Your task to perform on an android device: turn off airplane mode Image 0: 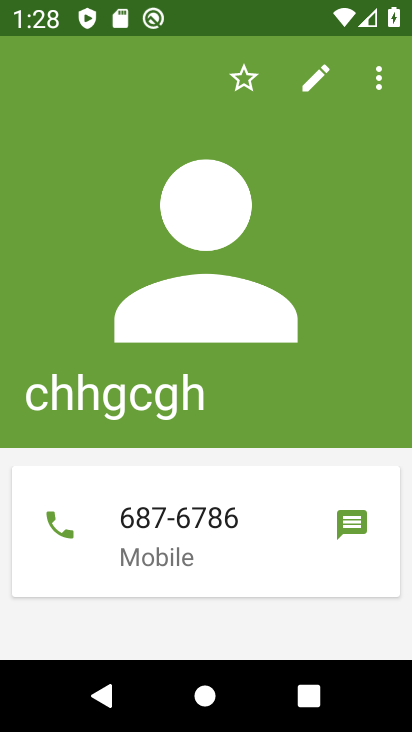
Step 0: drag from (286, 11) to (296, 598)
Your task to perform on an android device: turn off airplane mode Image 1: 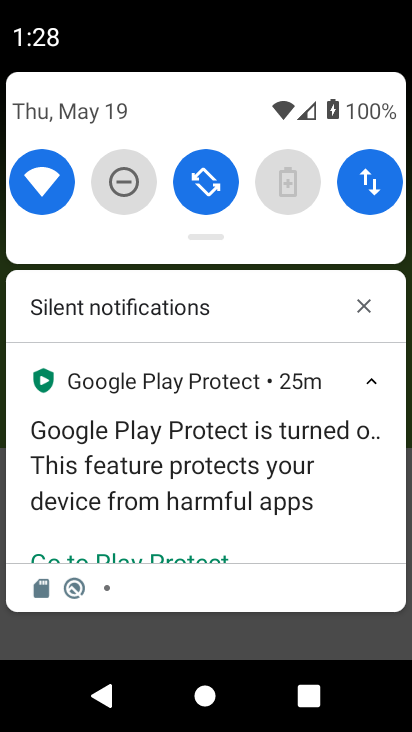
Step 1: task complete